Your task to perform on an android device: find photos in the google photos app Image 0: 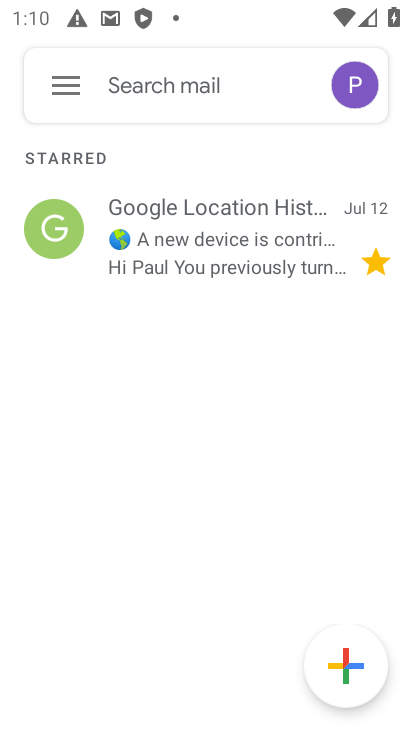
Step 0: press home button
Your task to perform on an android device: find photos in the google photos app Image 1: 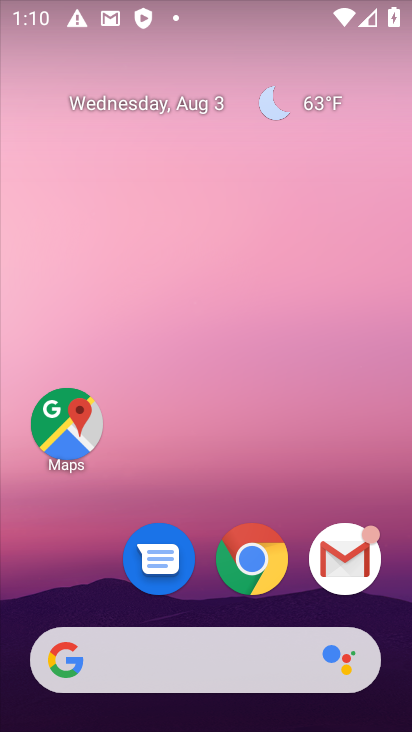
Step 1: click (263, 557)
Your task to perform on an android device: find photos in the google photos app Image 2: 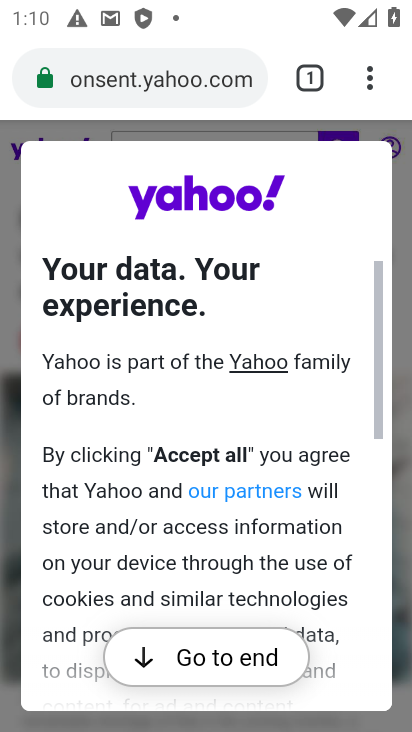
Step 2: press back button
Your task to perform on an android device: find photos in the google photos app Image 3: 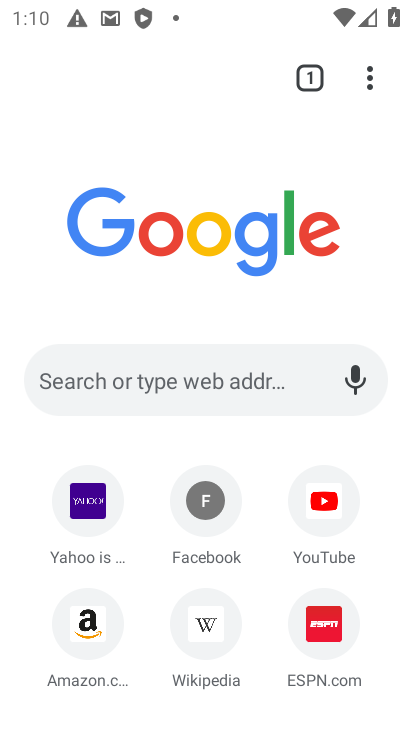
Step 3: press home button
Your task to perform on an android device: find photos in the google photos app Image 4: 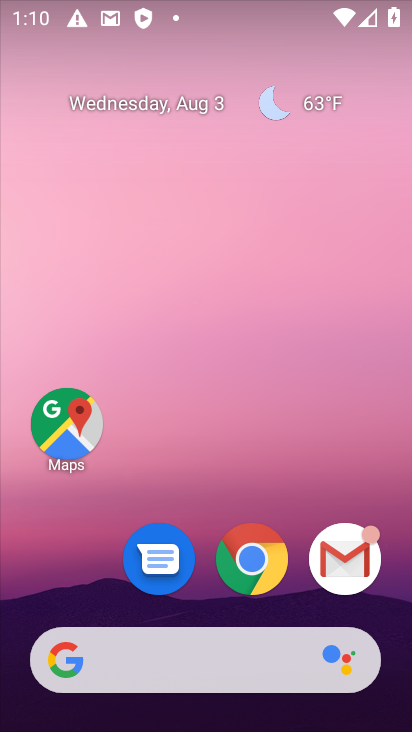
Step 4: drag from (247, 708) to (283, 274)
Your task to perform on an android device: find photos in the google photos app Image 5: 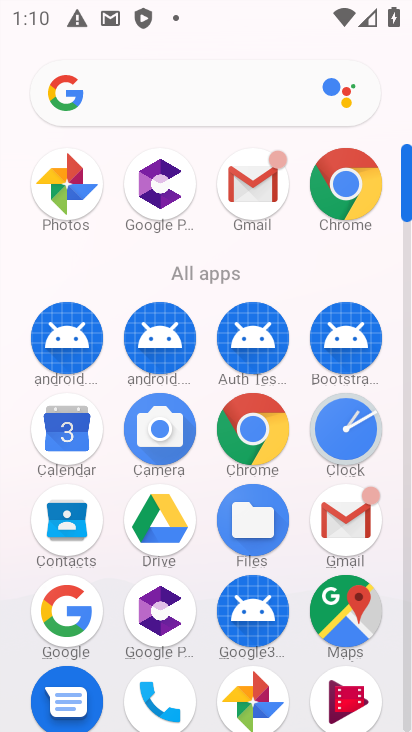
Step 5: click (248, 688)
Your task to perform on an android device: find photos in the google photos app Image 6: 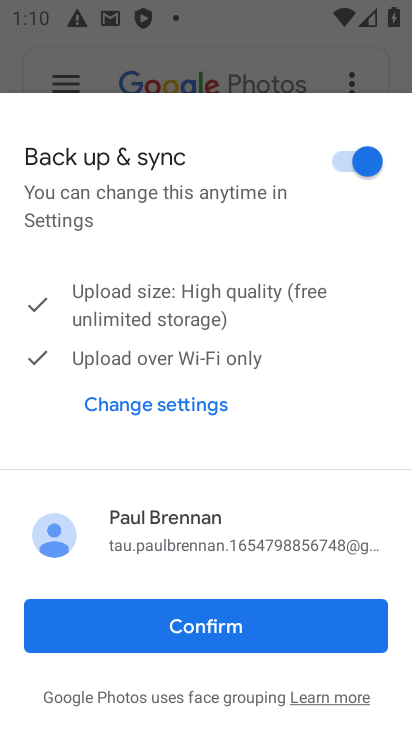
Step 6: click (202, 613)
Your task to perform on an android device: find photos in the google photos app Image 7: 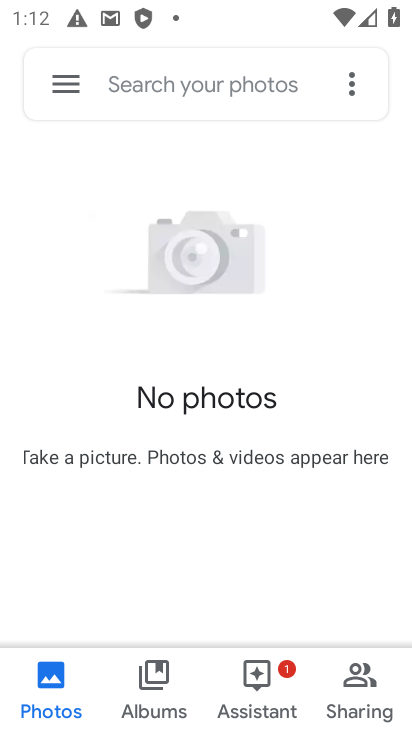
Step 7: task complete